Your task to perform on an android device: star an email in the gmail app Image 0: 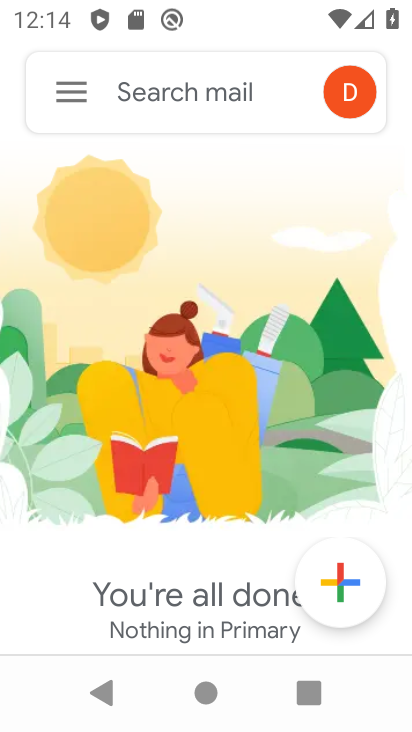
Step 0: click (57, 85)
Your task to perform on an android device: star an email in the gmail app Image 1: 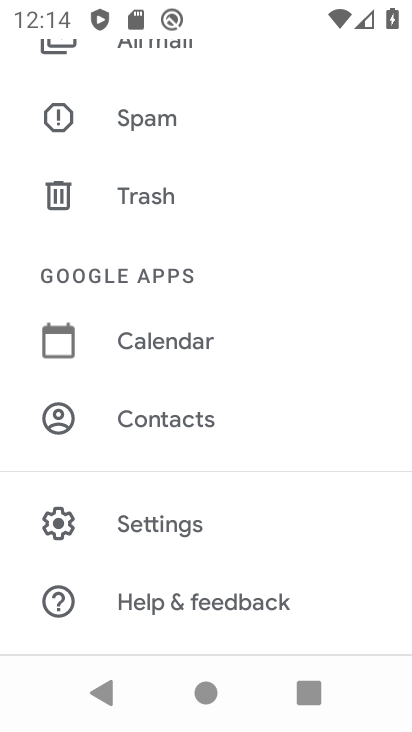
Step 1: drag from (281, 221) to (306, 454)
Your task to perform on an android device: star an email in the gmail app Image 2: 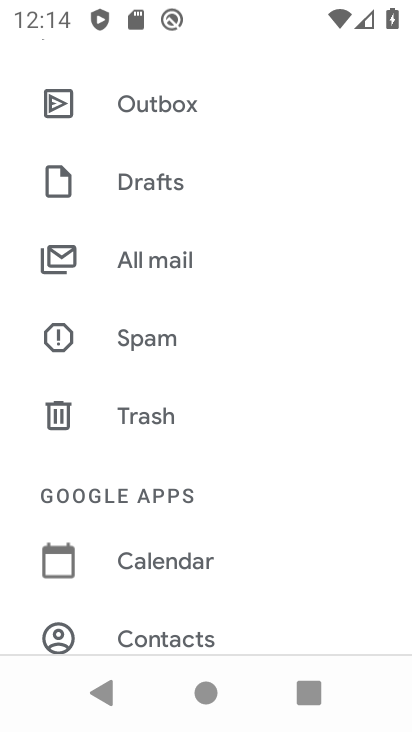
Step 2: click (307, 422)
Your task to perform on an android device: star an email in the gmail app Image 3: 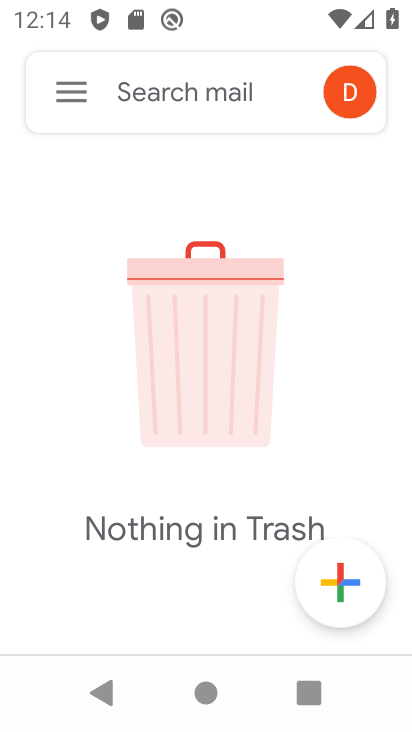
Step 3: click (65, 88)
Your task to perform on an android device: star an email in the gmail app Image 4: 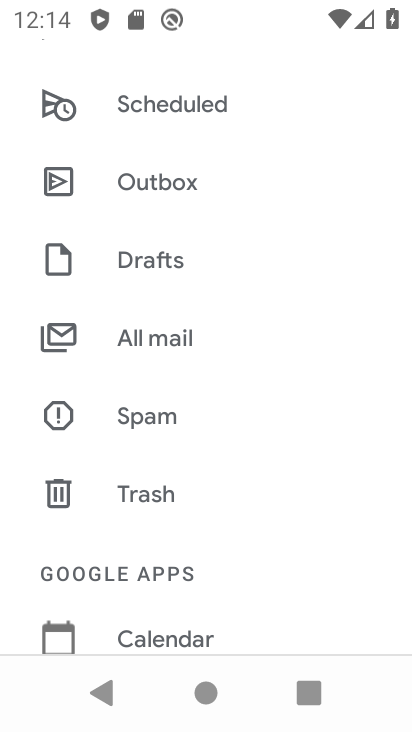
Step 4: drag from (273, 138) to (296, 423)
Your task to perform on an android device: star an email in the gmail app Image 5: 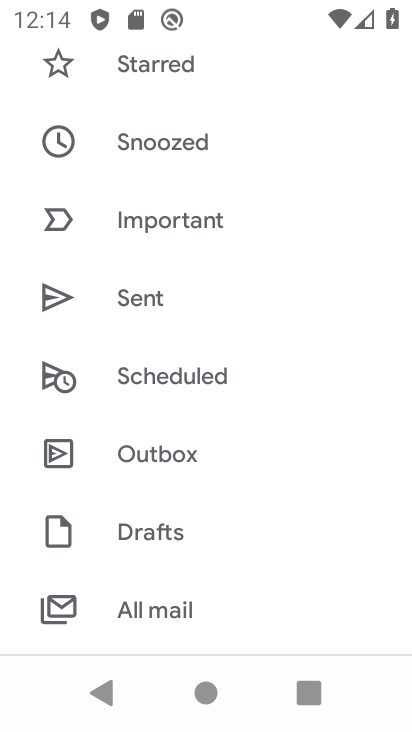
Step 5: click (306, 447)
Your task to perform on an android device: star an email in the gmail app Image 6: 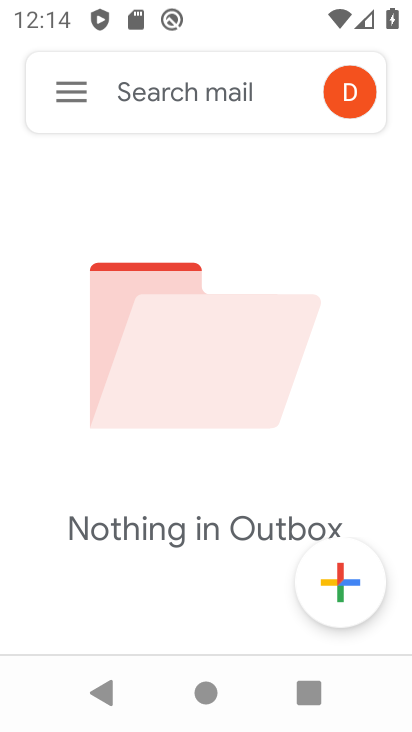
Step 6: click (76, 87)
Your task to perform on an android device: star an email in the gmail app Image 7: 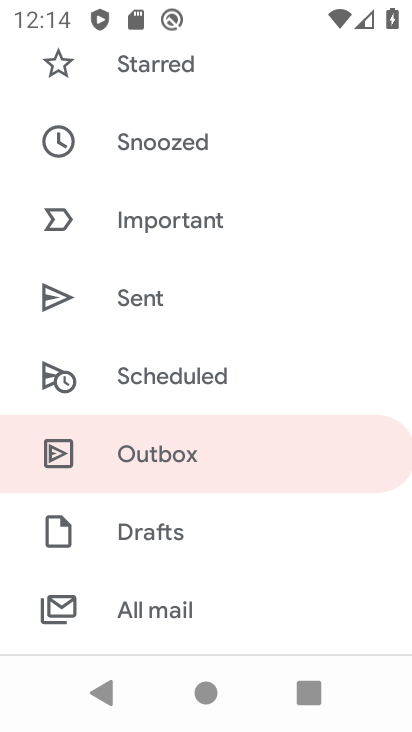
Step 7: drag from (285, 182) to (292, 435)
Your task to perform on an android device: star an email in the gmail app Image 8: 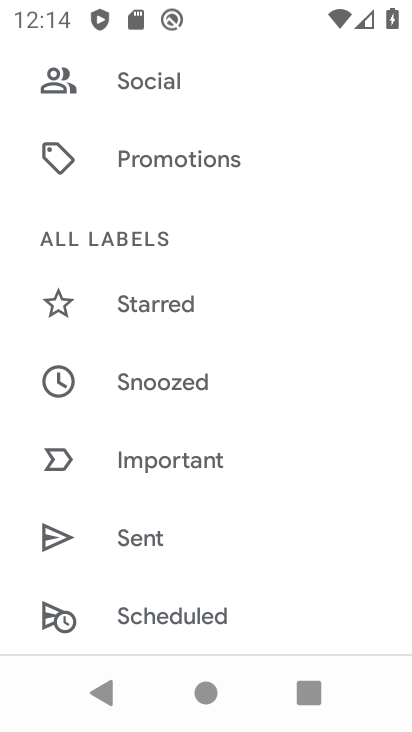
Step 8: drag from (296, 80) to (306, 447)
Your task to perform on an android device: star an email in the gmail app Image 9: 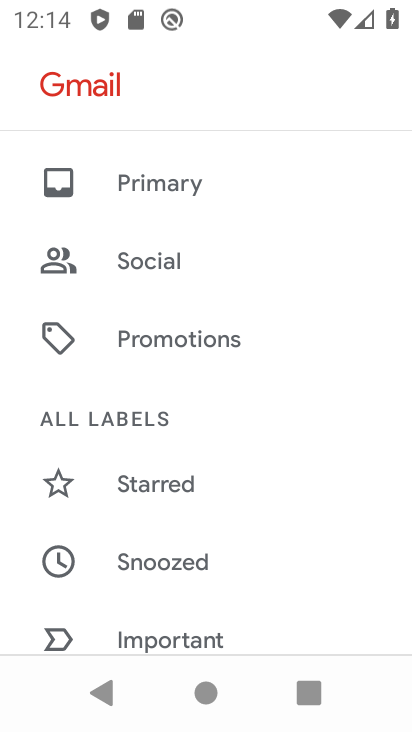
Step 9: drag from (300, 283) to (323, 523)
Your task to perform on an android device: star an email in the gmail app Image 10: 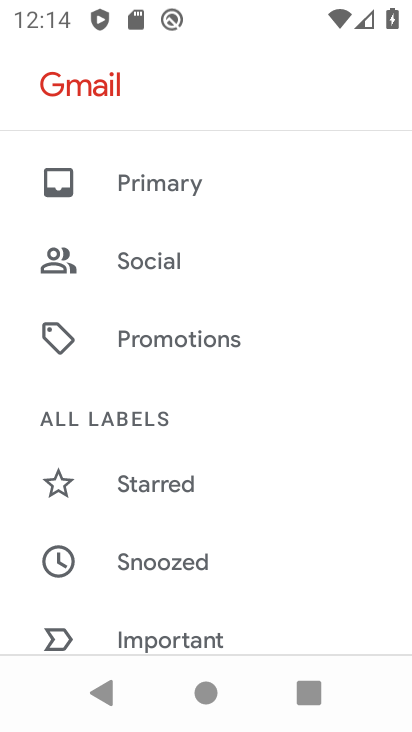
Step 10: click (143, 176)
Your task to perform on an android device: star an email in the gmail app Image 11: 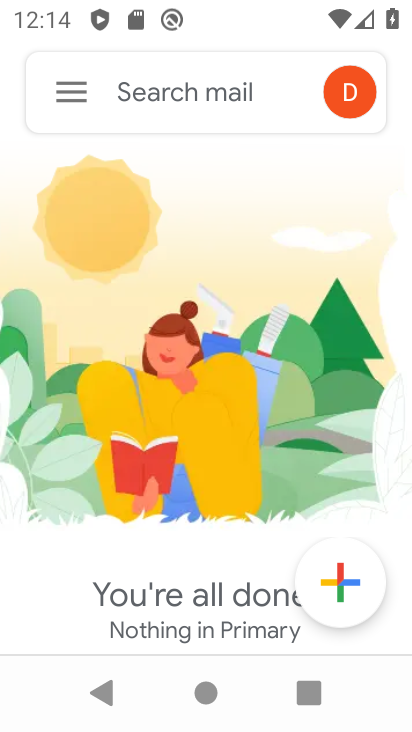
Step 11: task complete